Your task to perform on an android device: Open my contact list Image 0: 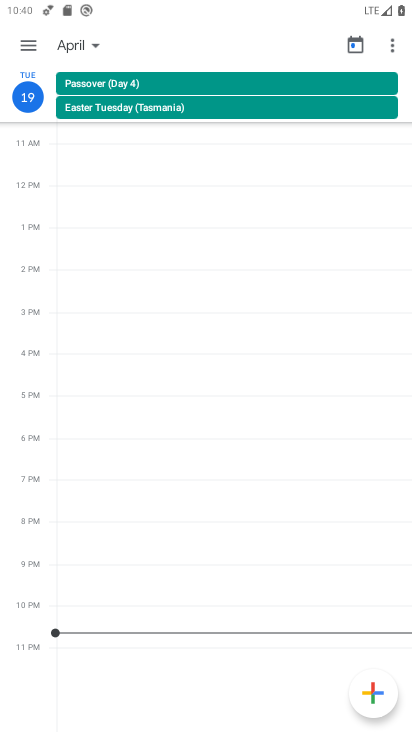
Step 0: press home button
Your task to perform on an android device: Open my contact list Image 1: 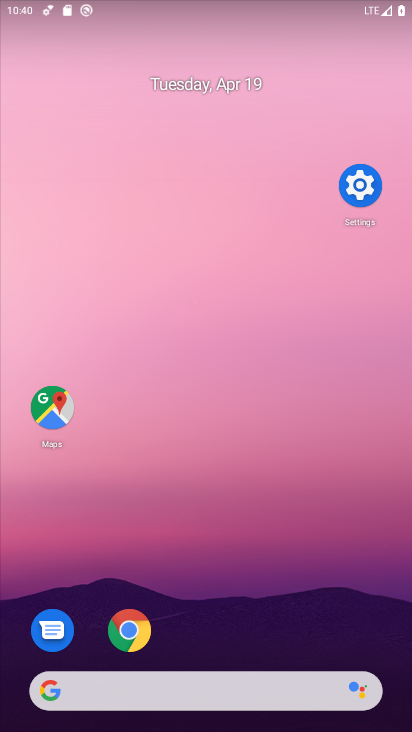
Step 1: drag from (220, 621) to (318, 146)
Your task to perform on an android device: Open my contact list Image 2: 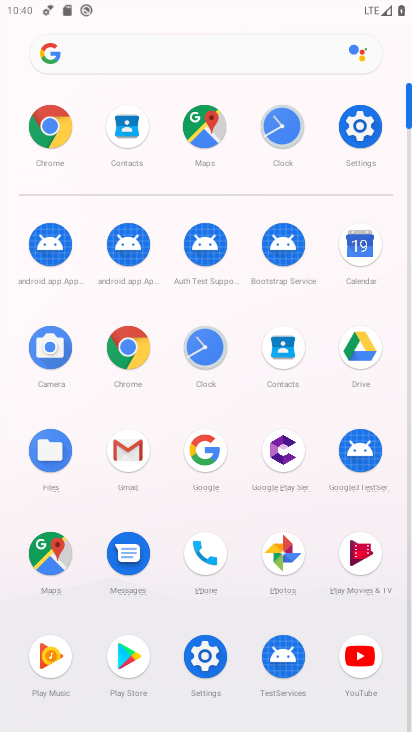
Step 2: click (295, 351)
Your task to perform on an android device: Open my contact list Image 3: 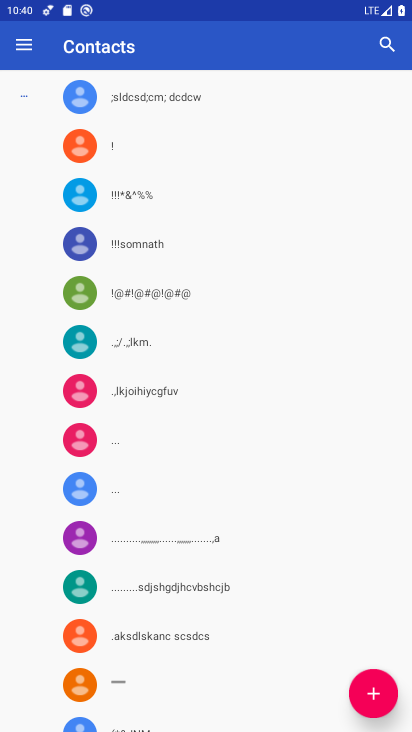
Step 3: task complete